Your task to perform on an android device: check data usage Image 0: 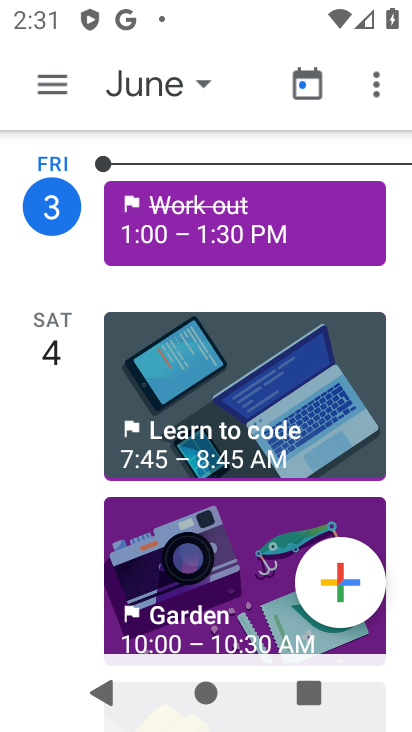
Step 0: press home button
Your task to perform on an android device: check data usage Image 1: 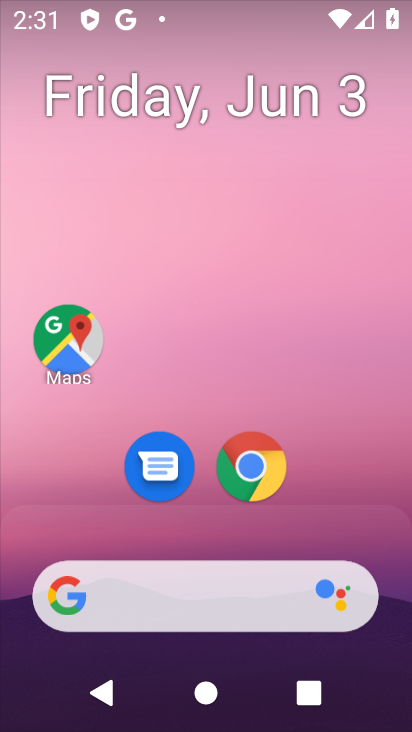
Step 1: drag from (255, 558) to (278, 304)
Your task to perform on an android device: check data usage Image 2: 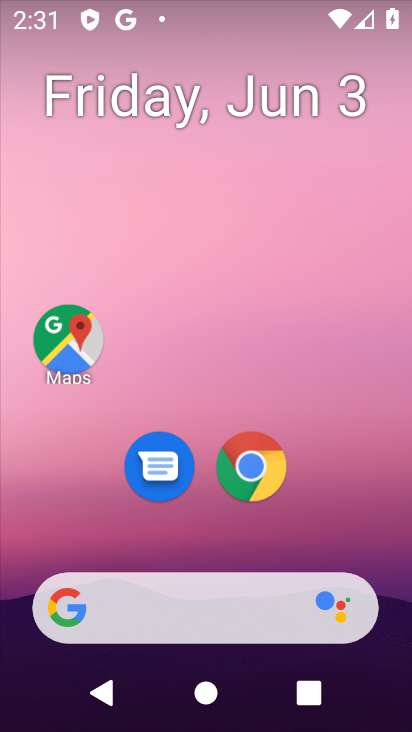
Step 2: drag from (292, 473) to (311, 67)
Your task to perform on an android device: check data usage Image 3: 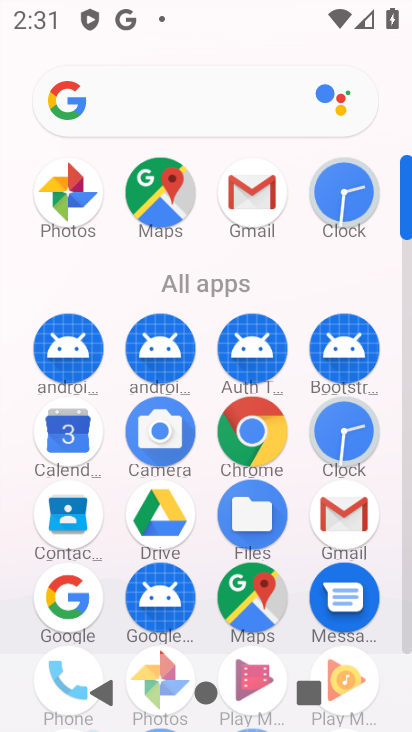
Step 3: drag from (310, 526) to (289, 252)
Your task to perform on an android device: check data usage Image 4: 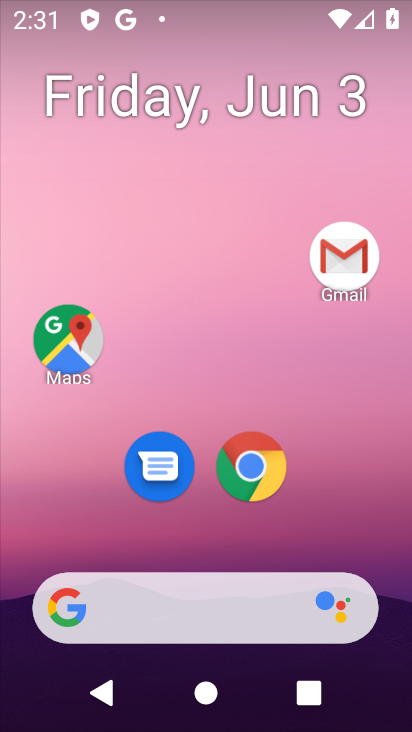
Step 4: drag from (300, 503) to (282, 330)
Your task to perform on an android device: check data usage Image 5: 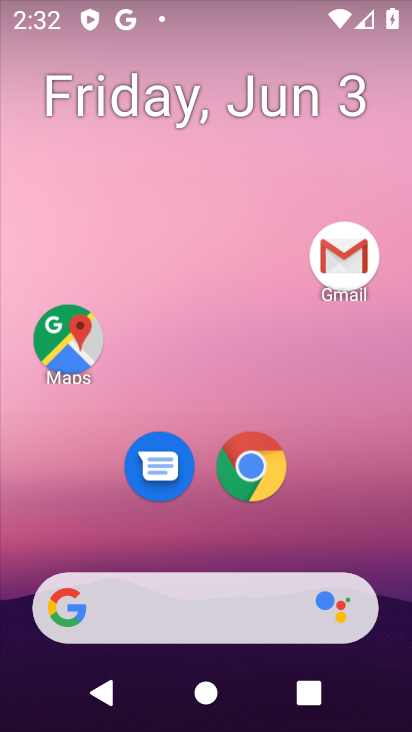
Step 5: drag from (205, 549) to (215, 244)
Your task to perform on an android device: check data usage Image 6: 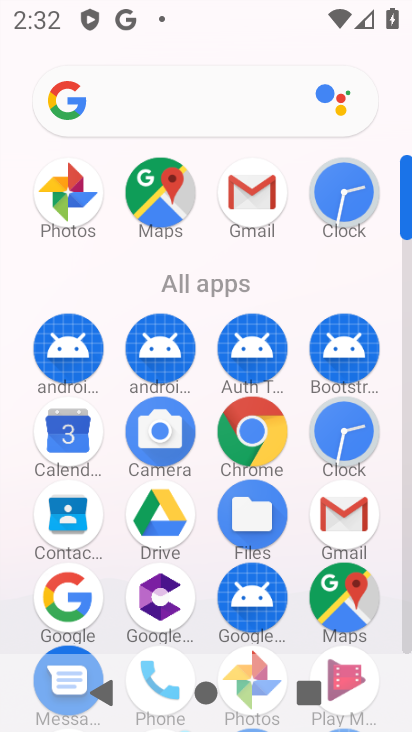
Step 6: drag from (204, 616) to (234, 344)
Your task to perform on an android device: check data usage Image 7: 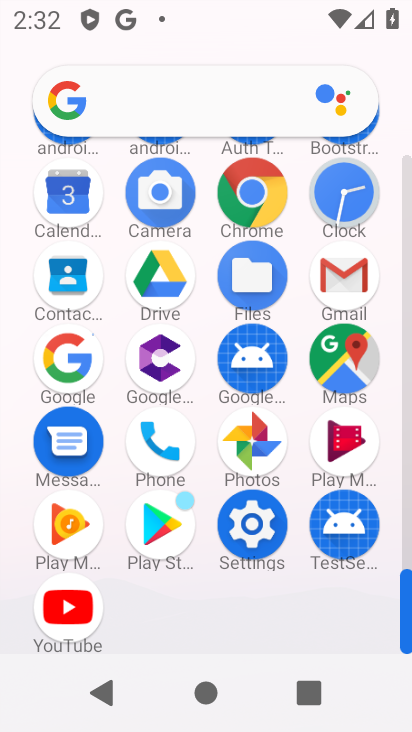
Step 7: click (246, 553)
Your task to perform on an android device: check data usage Image 8: 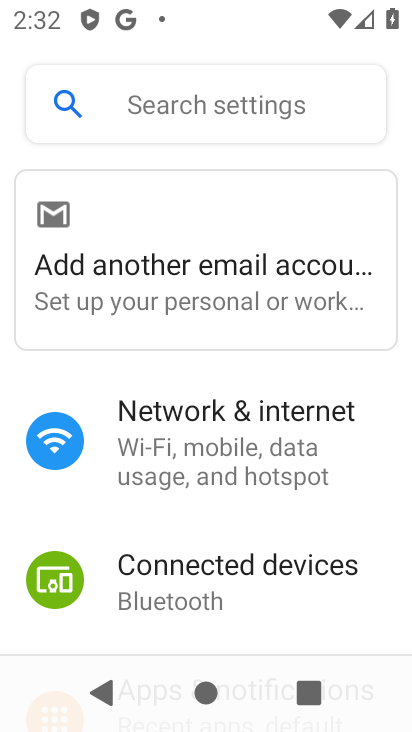
Step 8: click (186, 483)
Your task to perform on an android device: check data usage Image 9: 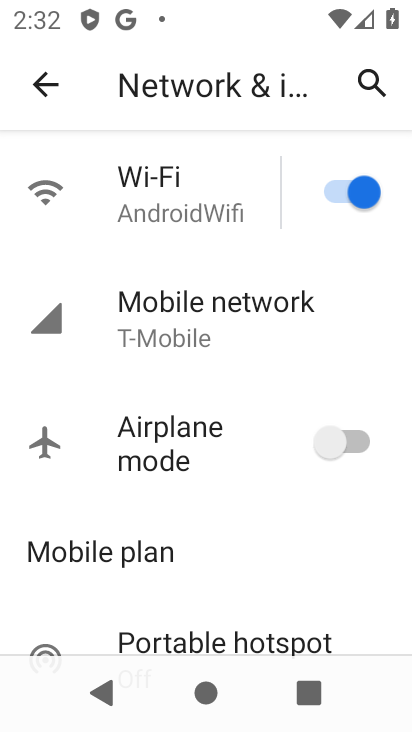
Step 9: click (173, 320)
Your task to perform on an android device: check data usage Image 10: 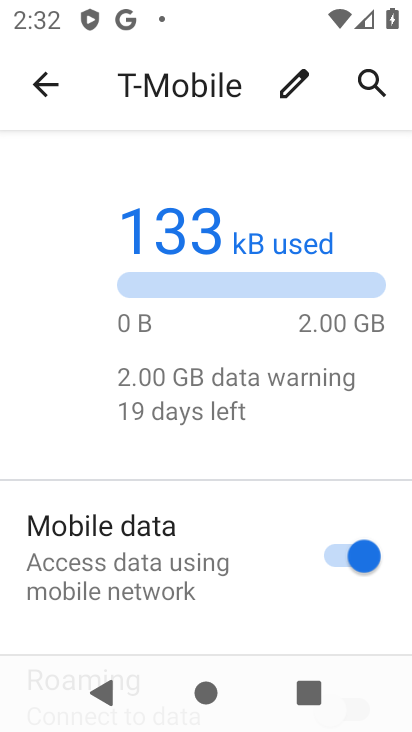
Step 10: task complete